Your task to perform on an android device: move an email to a new category in the gmail app Image 0: 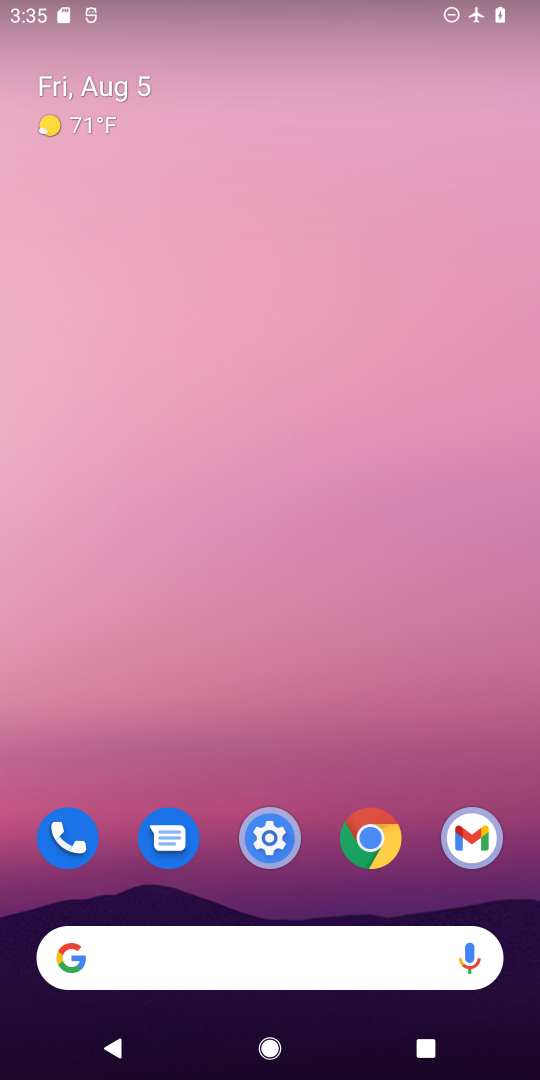
Step 0: drag from (422, 745) to (284, 145)
Your task to perform on an android device: move an email to a new category in the gmail app Image 1: 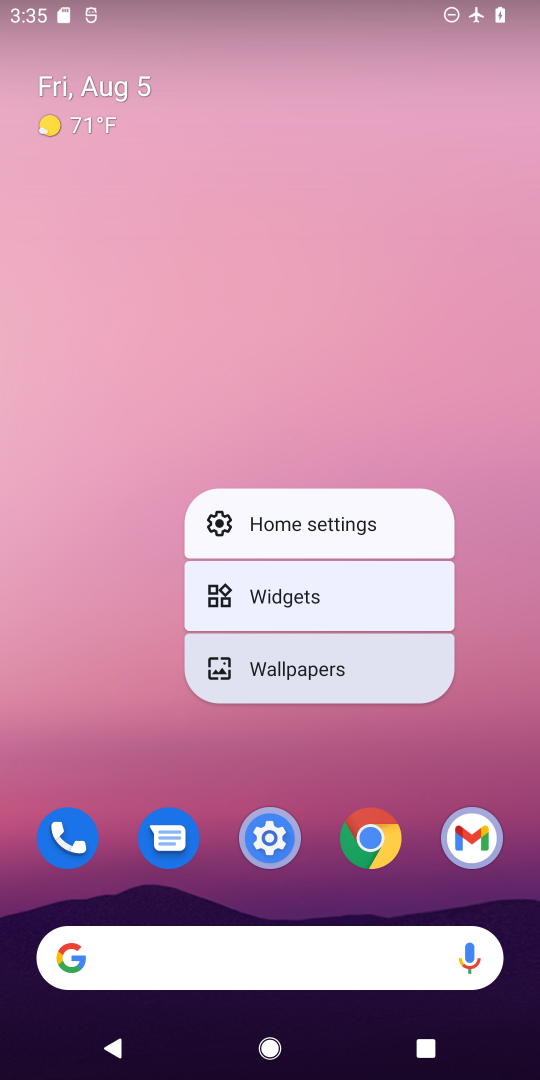
Step 1: drag from (523, 862) to (368, 219)
Your task to perform on an android device: move an email to a new category in the gmail app Image 2: 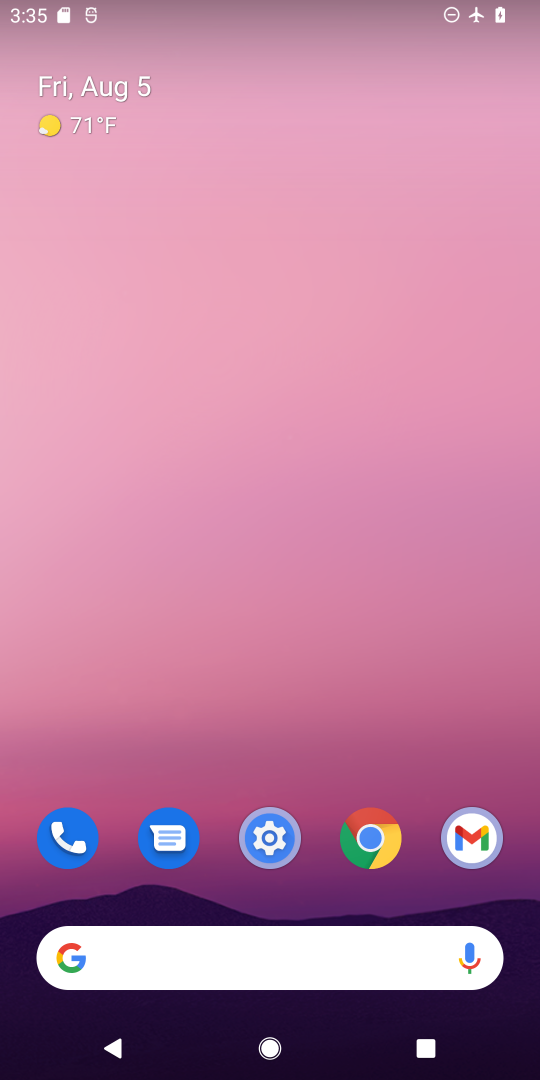
Step 2: drag from (335, 897) to (256, 70)
Your task to perform on an android device: move an email to a new category in the gmail app Image 3: 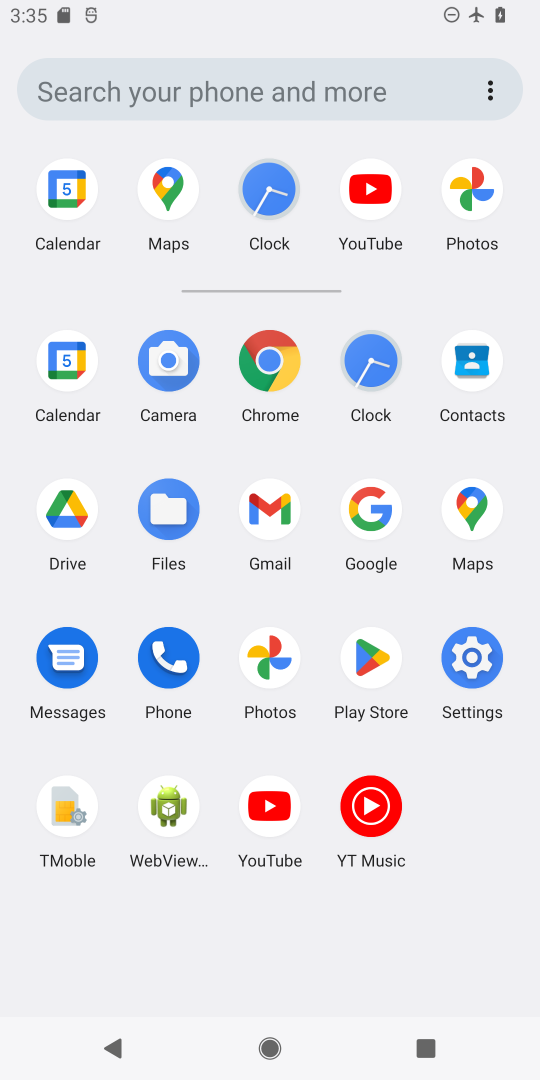
Step 3: click (281, 492)
Your task to perform on an android device: move an email to a new category in the gmail app Image 4: 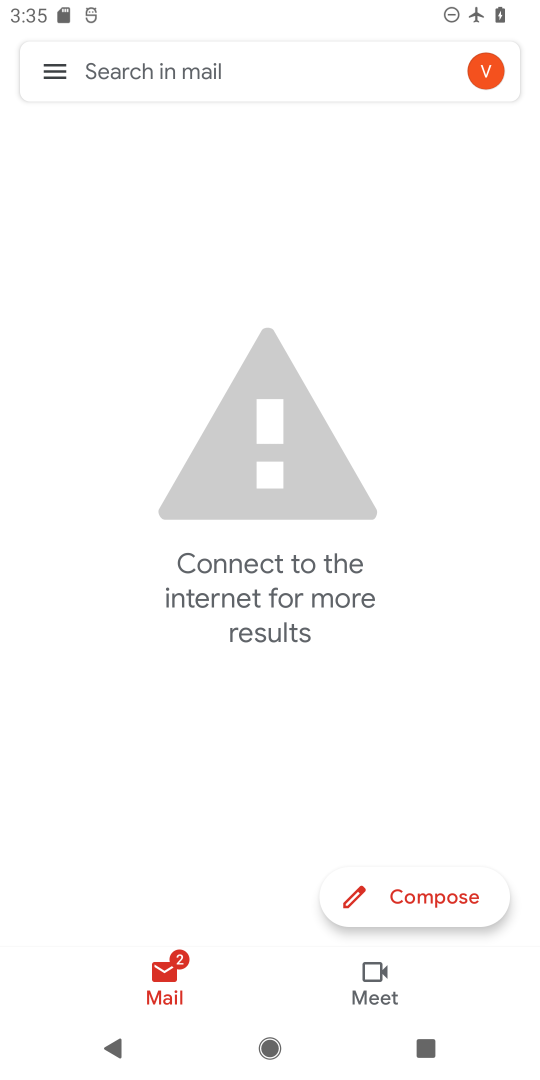
Step 4: click (56, 79)
Your task to perform on an android device: move an email to a new category in the gmail app Image 5: 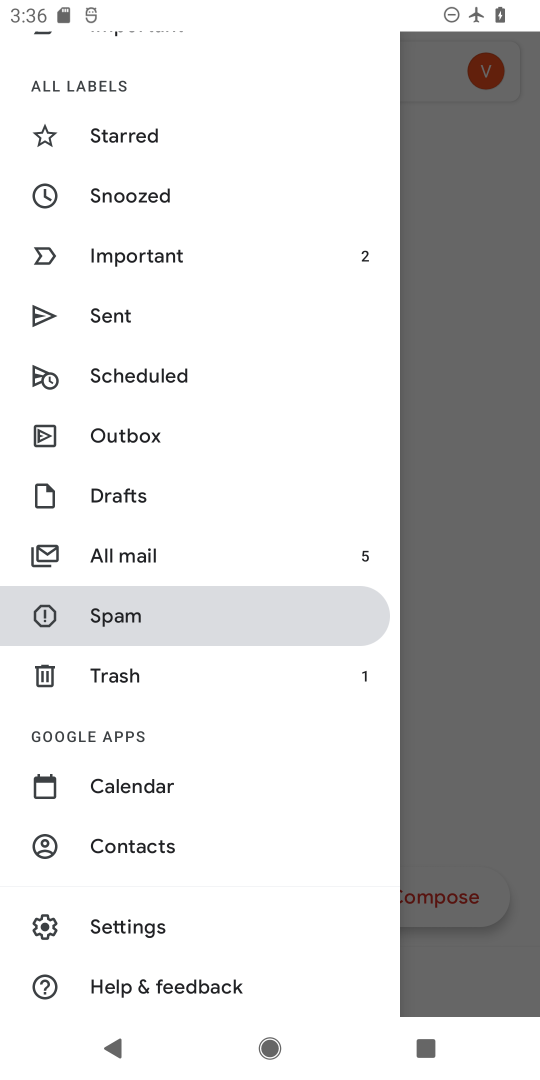
Step 5: click (179, 540)
Your task to perform on an android device: move an email to a new category in the gmail app Image 6: 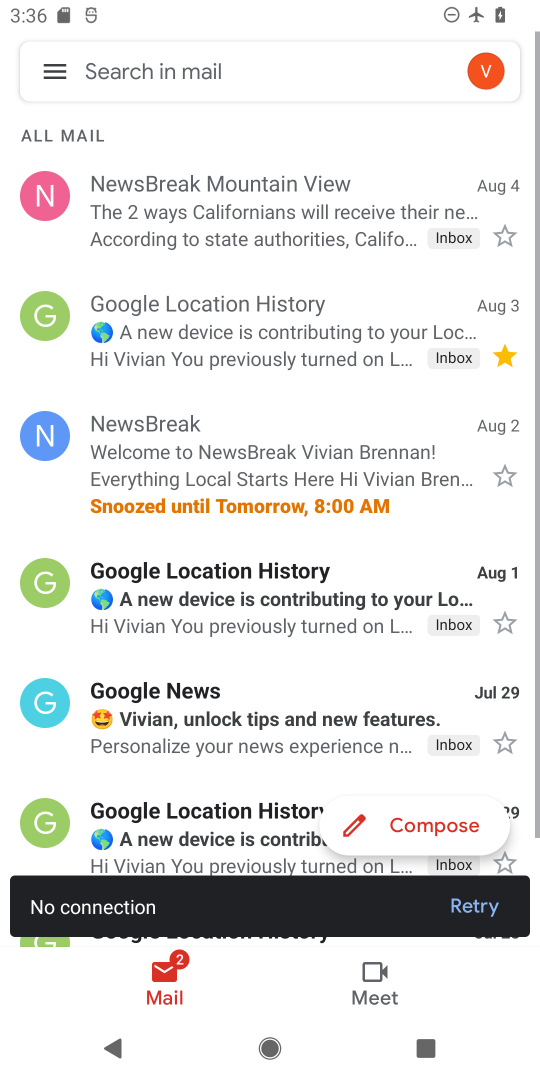
Step 6: click (230, 488)
Your task to perform on an android device: move an email to a new category in the gmail app Image 7: 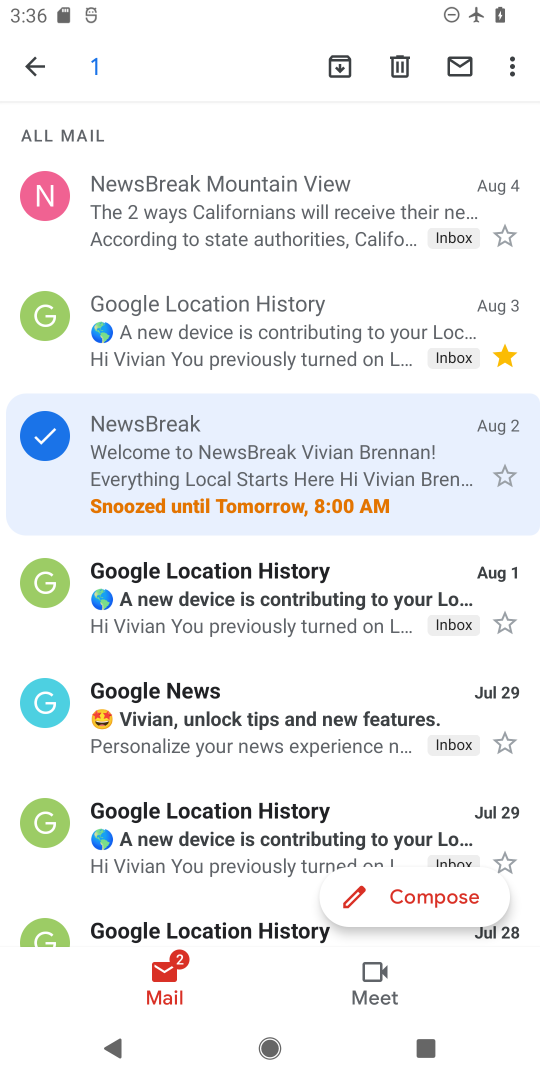
Step 7: click (504, 84)
Your task to perform on an android device: move an email to a new category in the gmail app Image 8: 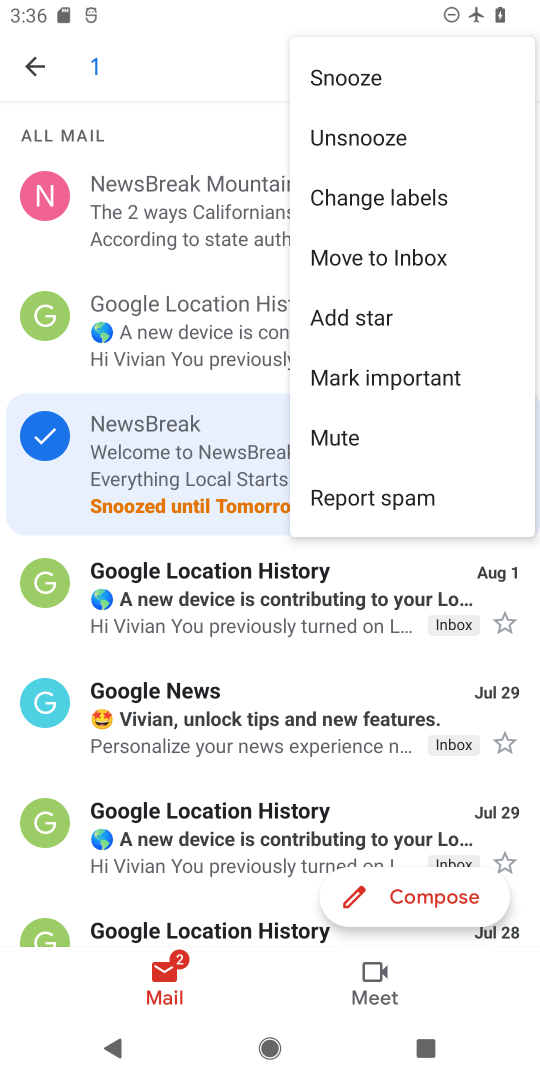
Step 8: click (453, 246)
Your task to perform on an android device: move an email to a new category in the gmail app Image 9: 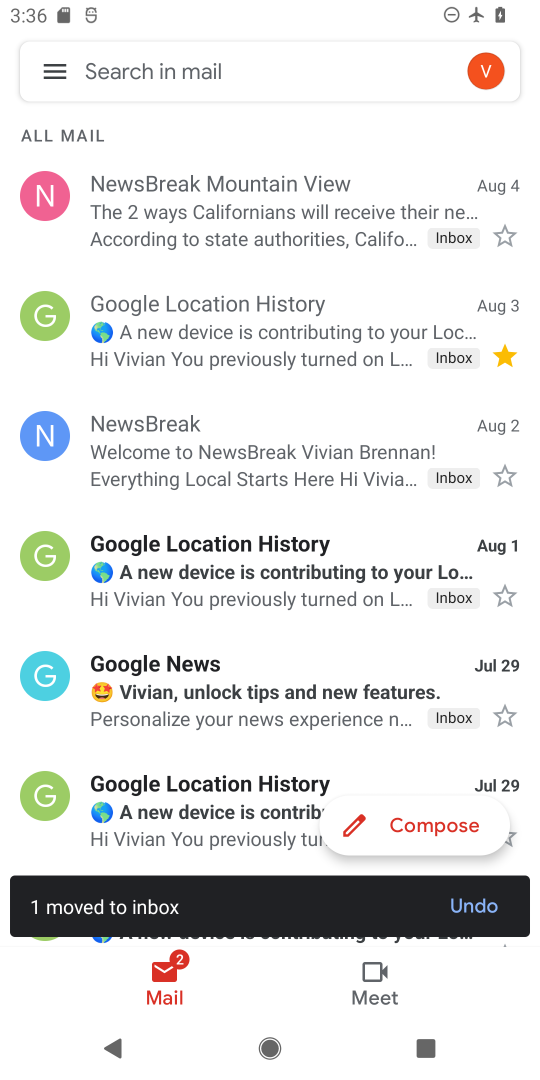
Step 9: task complete